Your task to perform on an android device: change alarm snooze length Image 0: 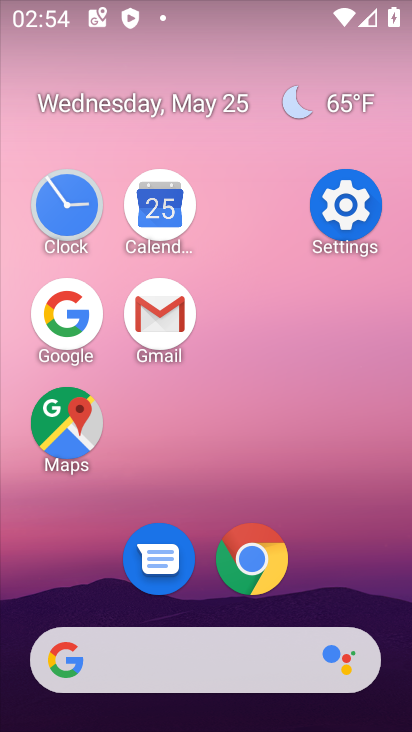
Step 0: click (65, 221)
Your task to perform on an android device: change alarm snooze length Image 1: 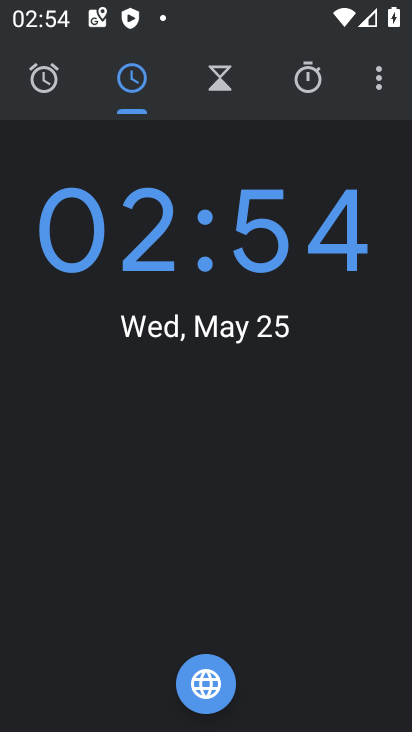
Step 1: click (367, 87)
Your task to perform on an android device: change alarm snooze length Image 2: 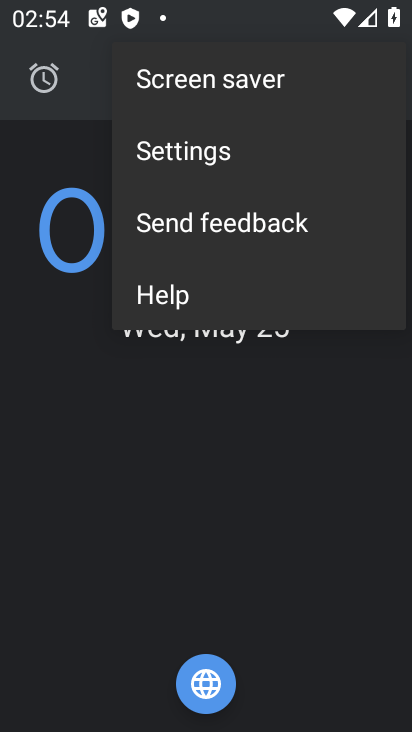
Step 2: click (264, 152)
Your task to perform on an android device: change alarm snooze length Image 3: 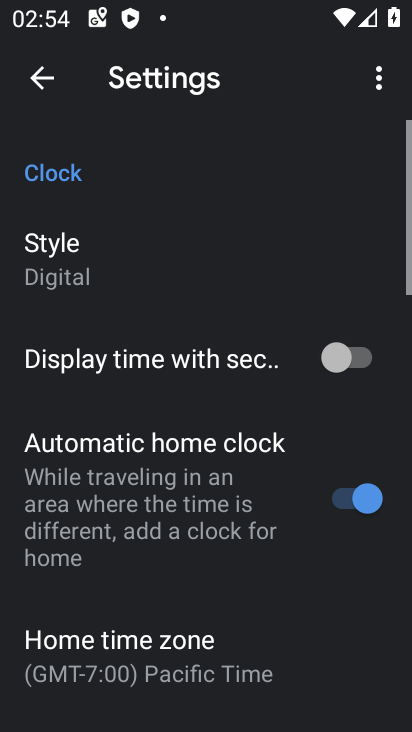
Step 3: drag from (144, 540) to (193, 179)
Your task to perform on an android device: change alarm snooze length Image 4: 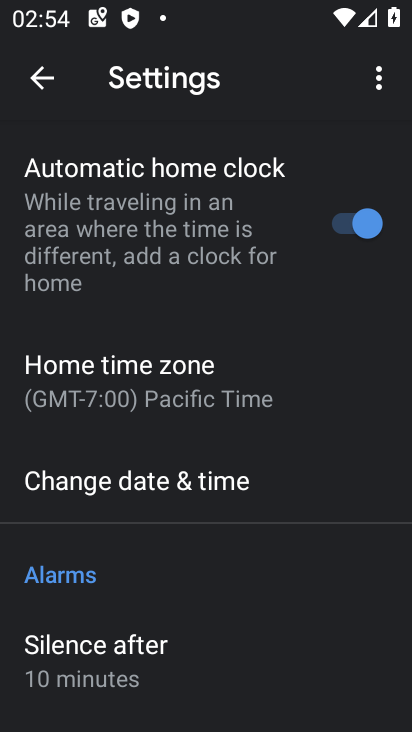
Step 4: drag from (174, 579) to (210, 113)
Your task to perform on an android device: change alarm snooze length Image 5: 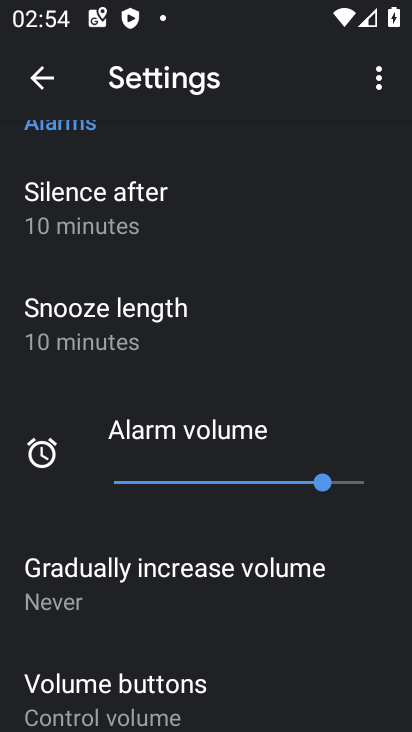
Step 5: click (159, 328)
Your task to perform on an android device: change alarm snooze length Image 6: 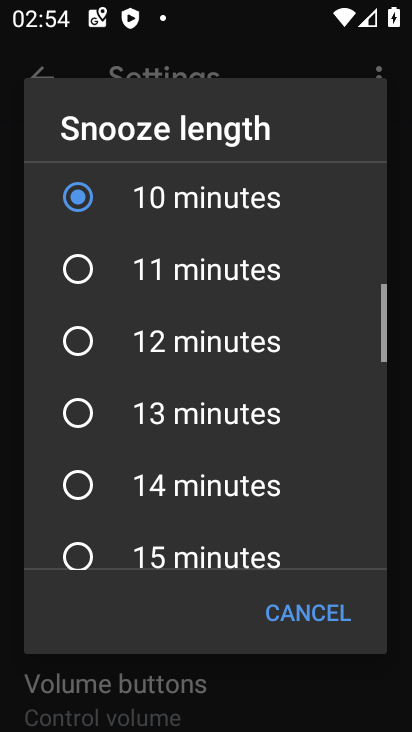
Step 6: click (170, 293)
Your task to perform on an android device: change alarm snooze length Image 7: 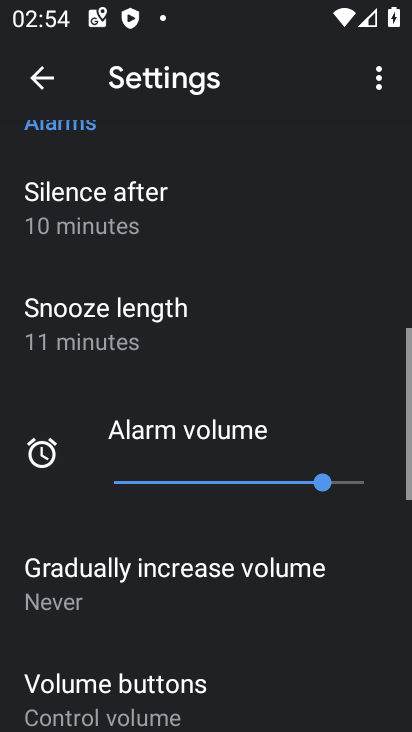
Step 7: task complete